Your task to perform on an android device: turn on airplane mode Image 0: 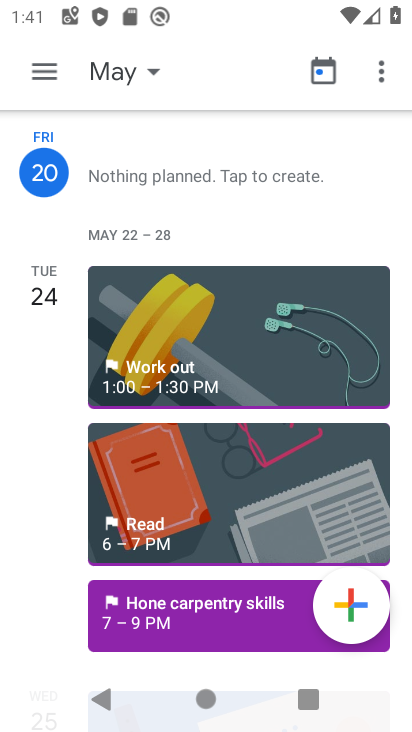
Step 0: press home button
Your task to perform on an android device: turn on airplane mode Image 1: 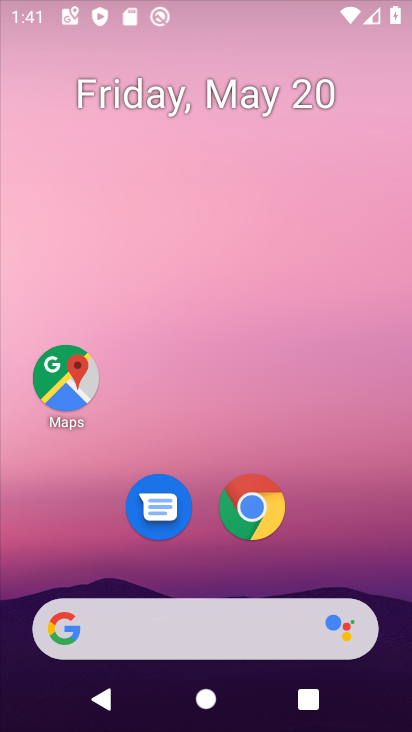
Step 1: drag from (239, 691) to (239, 186)
Your task to perform on an android device: turn on airplane mode Image 2: 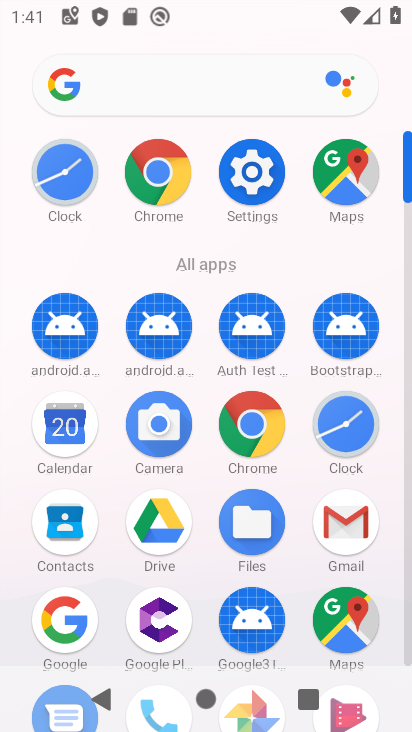
Step 2: click (258, 163)
Your task to perform on an android device: turn on airplane mode Image 3: 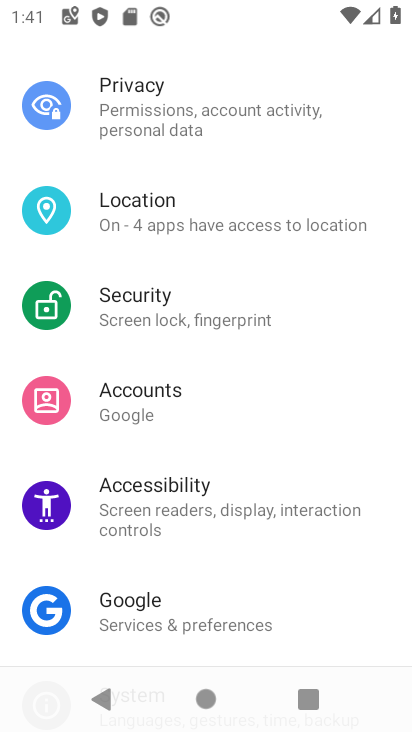
Step 3: drag from (142, 156) to (156, 592)
Your task to perform on an android device: turn on airplane mode Image 4: 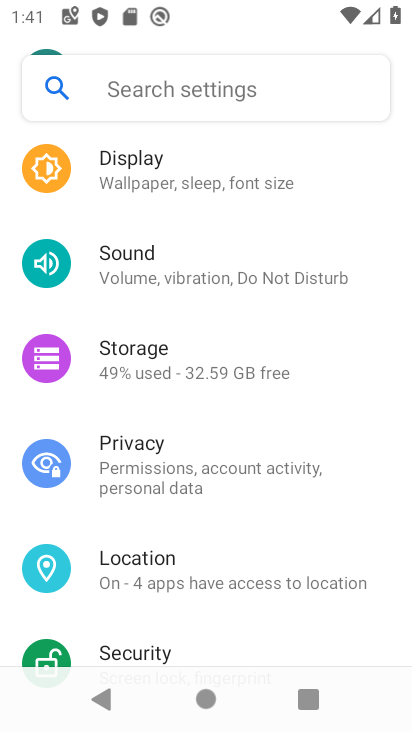
Step 4: drag from (187, 183) to (186, 588)
Your task to perform on an android device: turn on airplane mode Image 5: 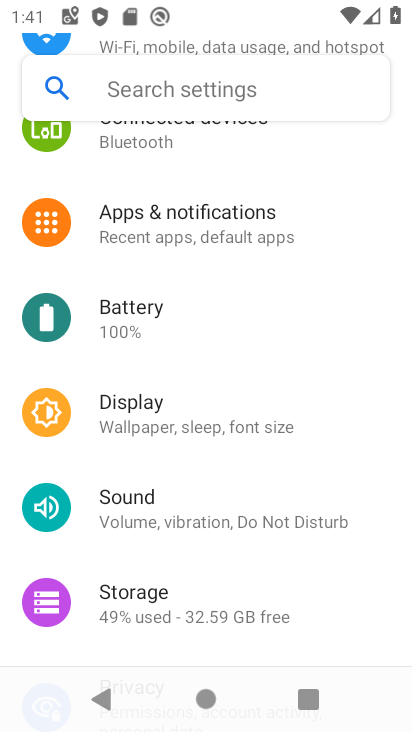
Step 5: drag from (181, 247) to (206, 638)
Your task to perform on an android device: turn on airplane mode Image 6: 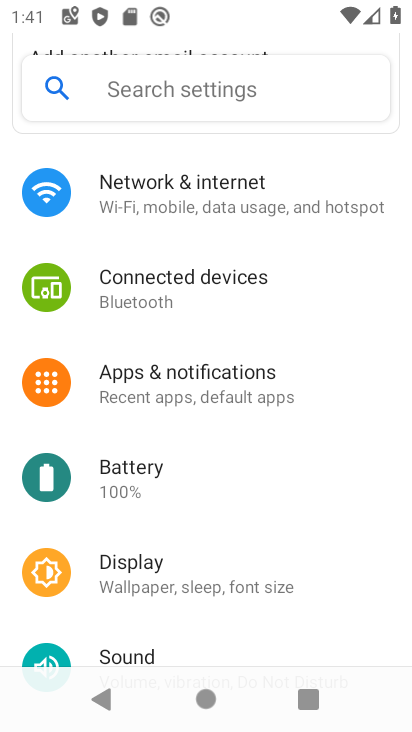
Step 6: drag from (223, 235) to (221, 698)
Your task to perform on an android device: turn on airplane mode Image 7: 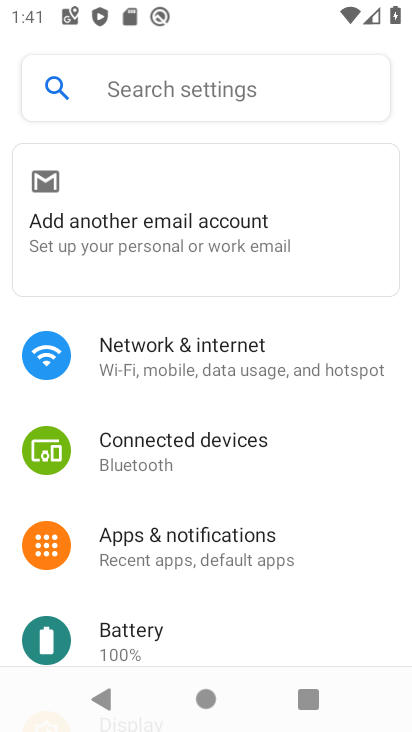
Step 7: click (181, 372)
Your task to perform on an android device: turn on airplane mode Image 8: 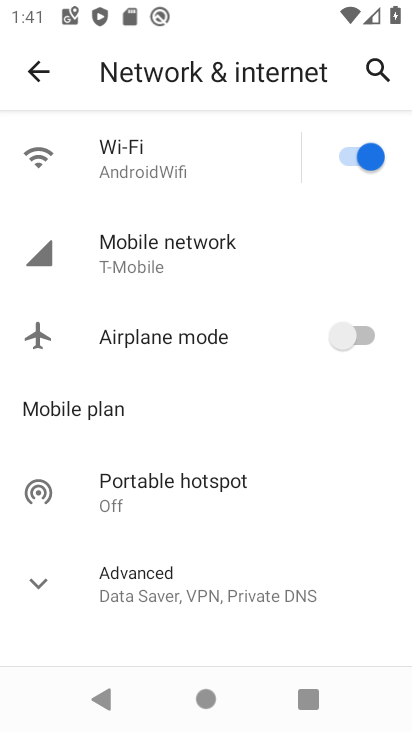
Step 8: click (365, 331)
Your task to perform on an android device: turn on airplane mode Image 9: 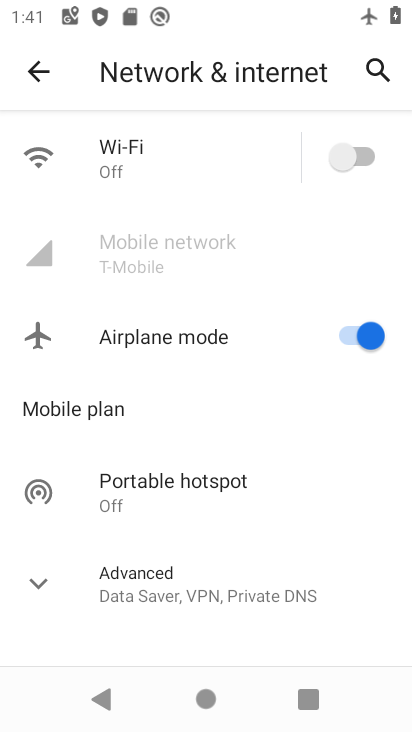
Step 9: task complete